Your task to perform on an android device: Open Amazon Image 0: 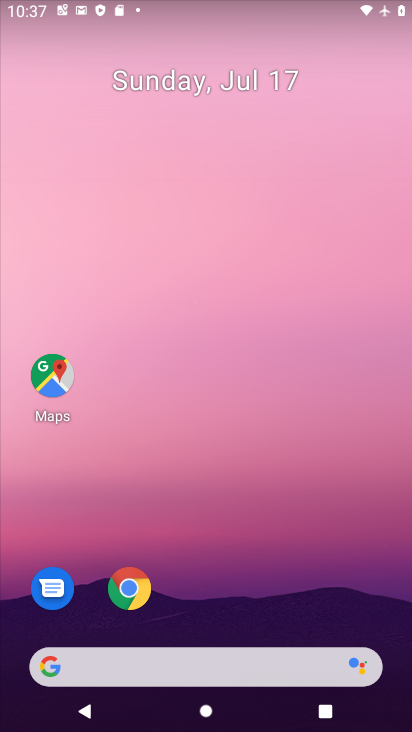
Step 0: press home button
Your task to perform on an android device: Open Amazon Image 1: 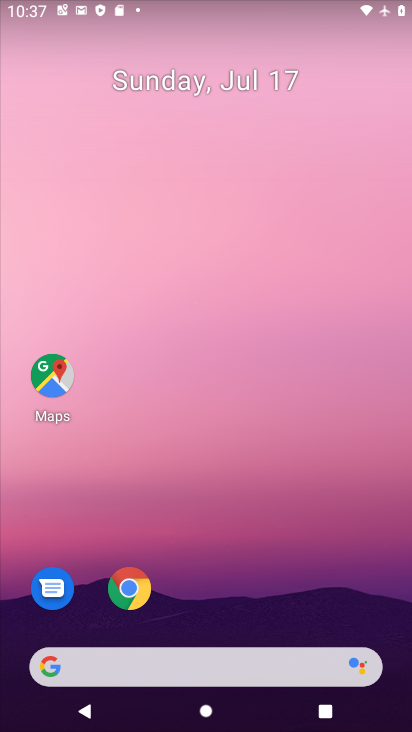
Step 1: click (119, 580)
Your task to perform on an android device: Open Amazon Image 2: 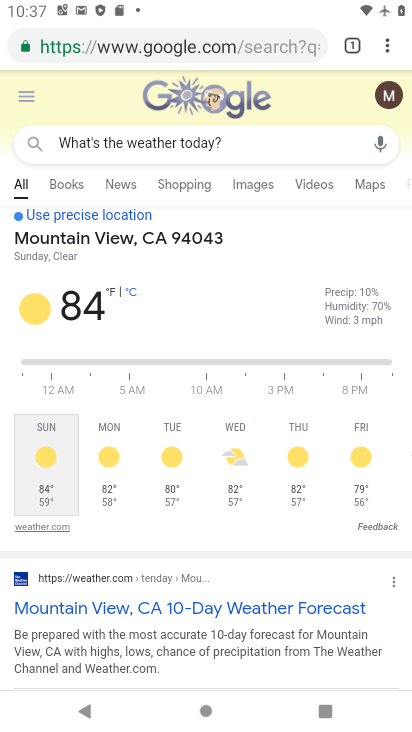
Step 2: click (214, 40)
Your task to perform on an android device: Open Amazon Image 3: 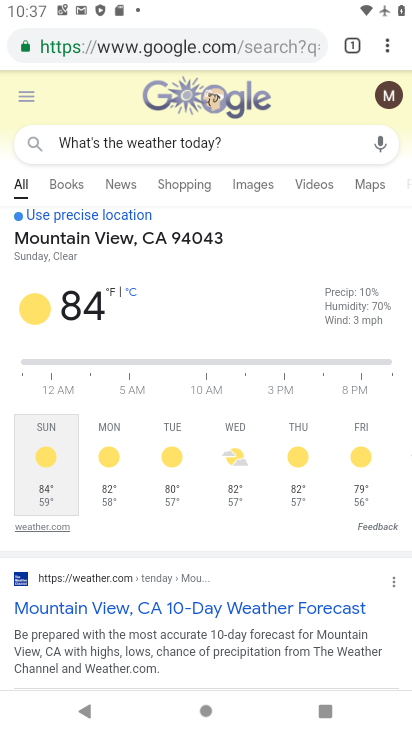
Step 3: click (214, 40)
Your task to perform on an android device: Open Amazon Image 4: 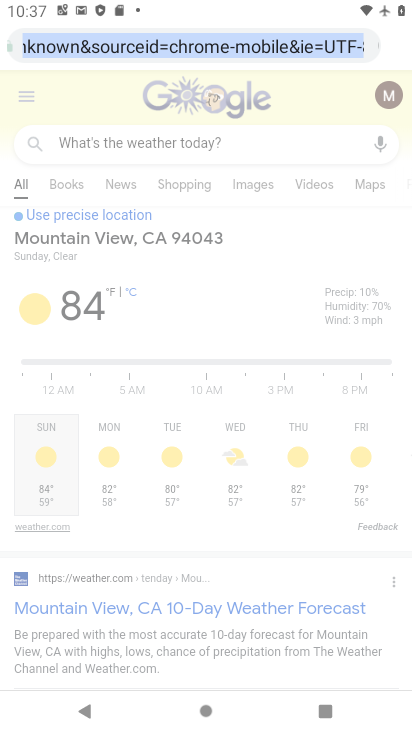
Step 4: click (214, 40)
Your task to perform on an android device: Open Amazon Image 5: 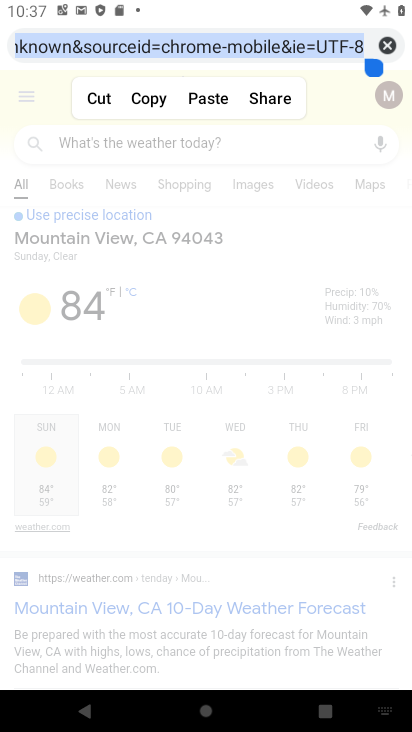
Step 5: type "Amazon"
Your task to perform on an android device: Open Amazon Image 6: 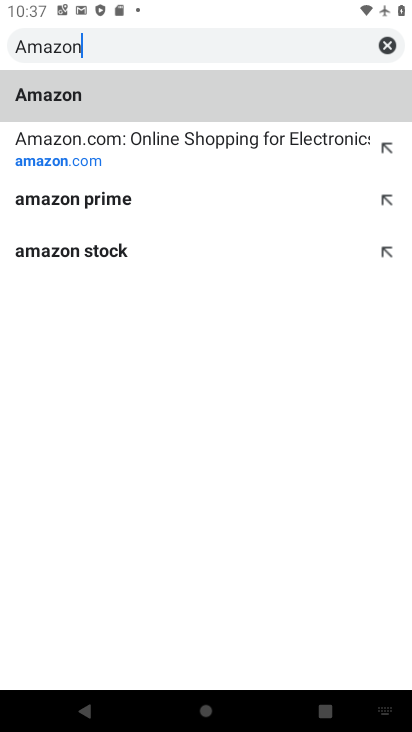
Step 6: click (309, 128)
Your task to perform on an android device: Open Amazon Image 7: 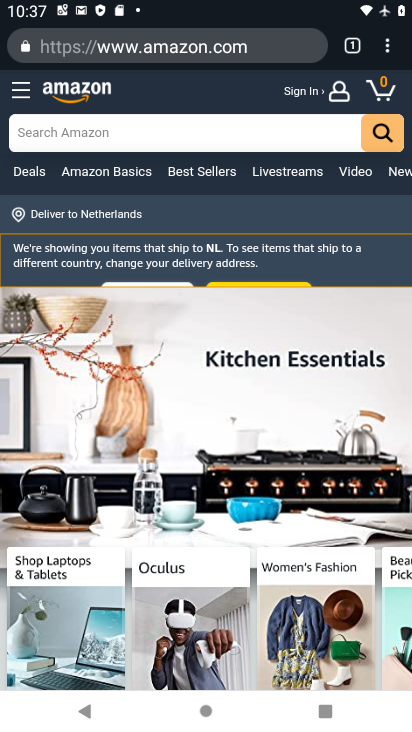
Step 7: task complete